Your task to perform on an android device: read, delete, or share a saved page in the chrome app Image 0: 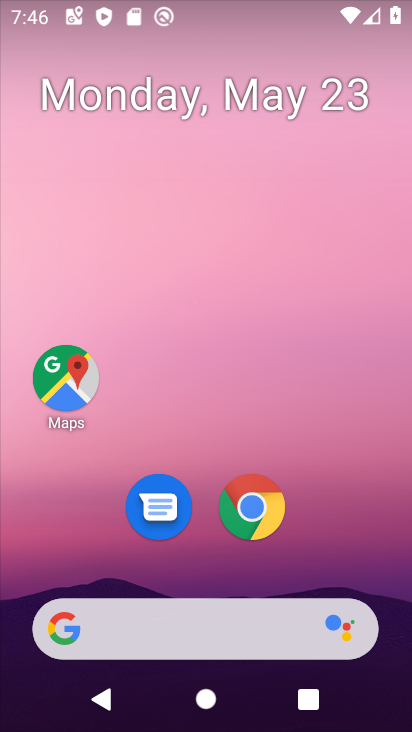
Step 0: drag from (383, 513) to (302, 165)
Your task to perform on an android device: read, delete, or share a saved page in the chrome app Image 1: 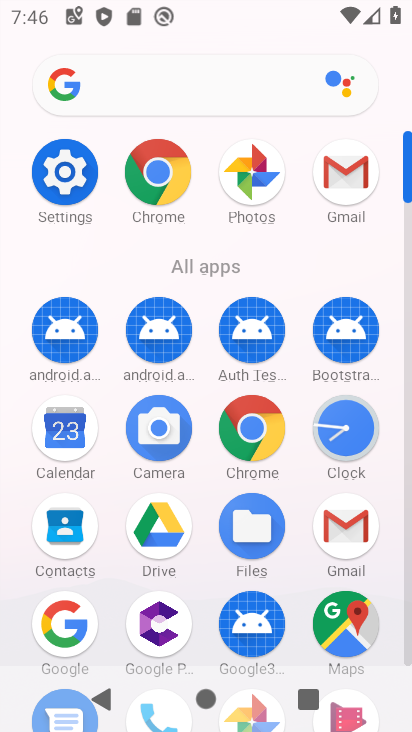
Step 1: click (249, 450)
Your task to perform on an android device: read, delete, or share a saved page in the chrome app Image 2: 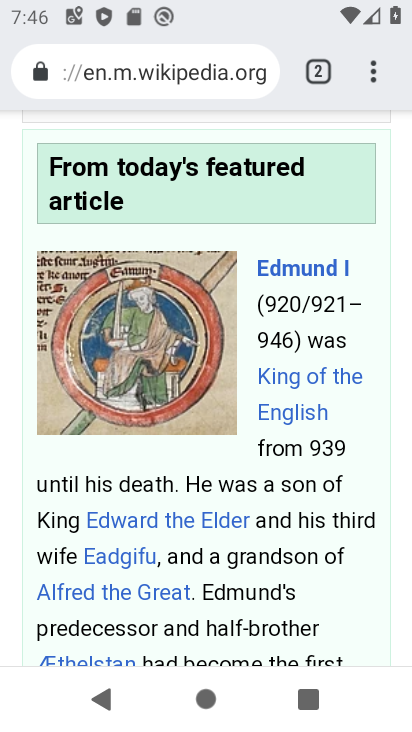
Step 2: drag from (370, 90) to (147, 534)
Your task to perform on an android device: read, delete, or share a saved page in the chrome app Image 3: 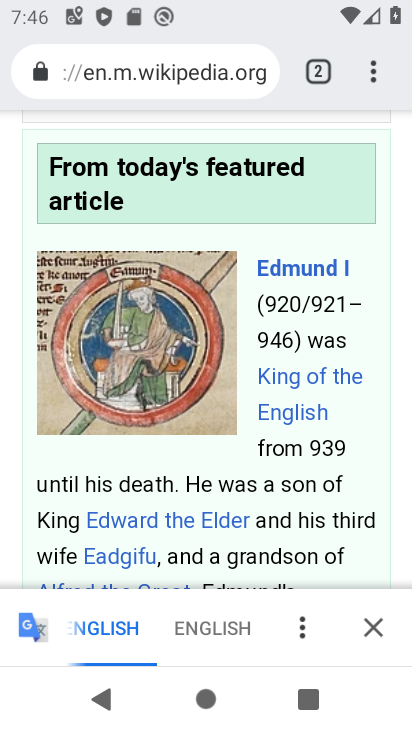
Step 3: drag from (387, 71) to (183, 273)
Your task to perform on an android device: read, delete, or share a saved page in the chrome app Image 4: 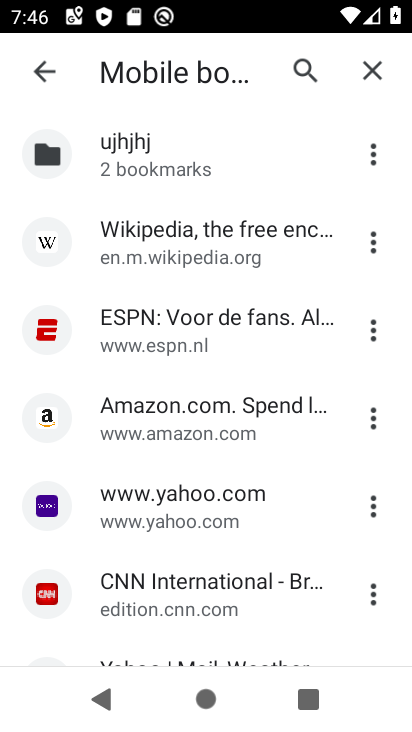
Step 4: click (379, 158)
Your task to perform on an android device: read, delete, or share a saved page in the chrome app Image 5: 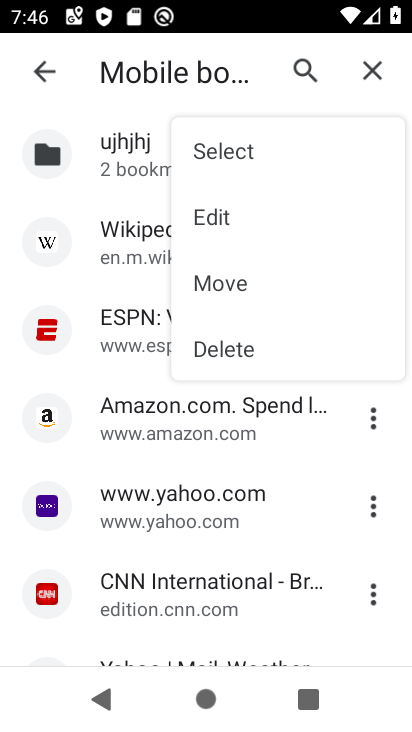
Step 5: click (233, 356)
Your task to perform on an android device: read, delete, or share a saved page in the chrome app Image 6: 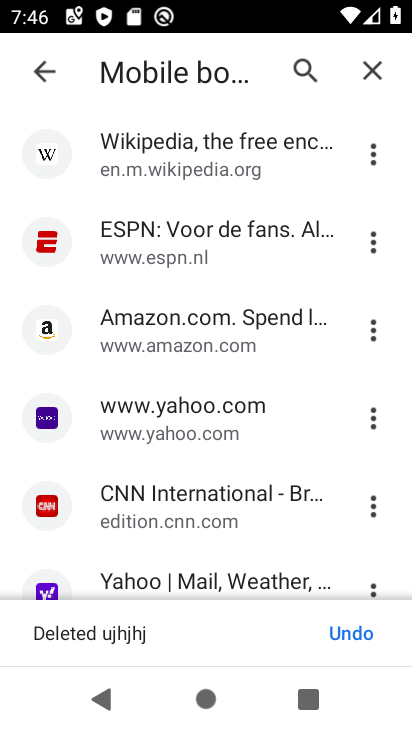
Step 6: task complete